Your task to perform on an android device: Go to wifi settings Image 0: 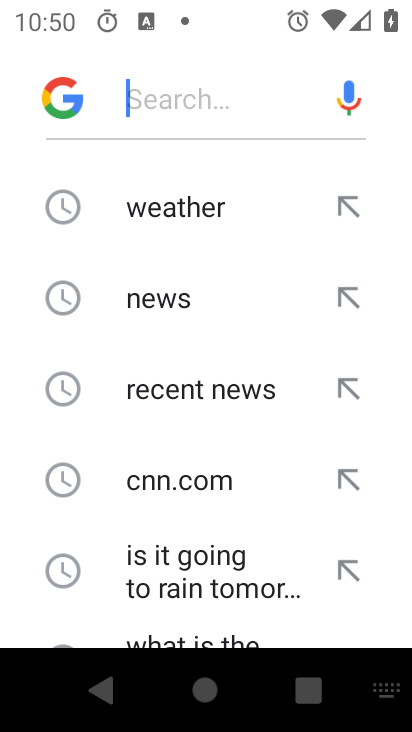
Step 0: press home button
Your task to perform on an android device: Go to wifi settings Image 1: 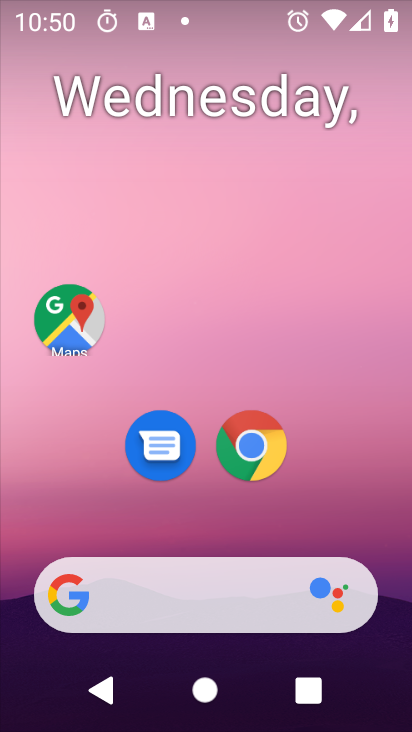
Step 1: drag from (398, 562) to (359, 107)
Your task to perform on an android device: Go to wifi settings Image 2: 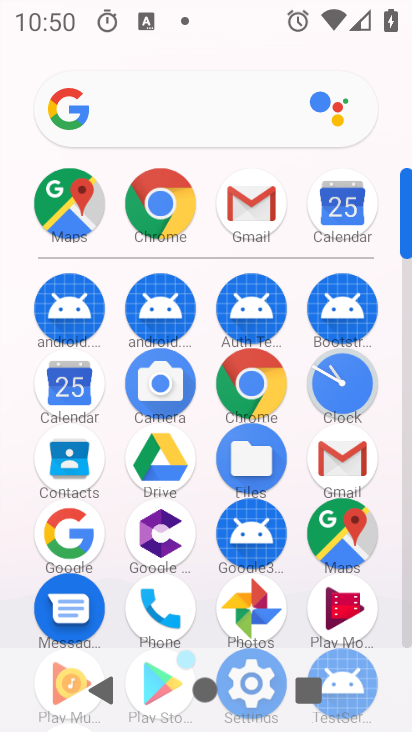
Step 2: drag from (398, 522) to (369, 237)
Your task to perform on an android device: Go to wifi settings Image 3: 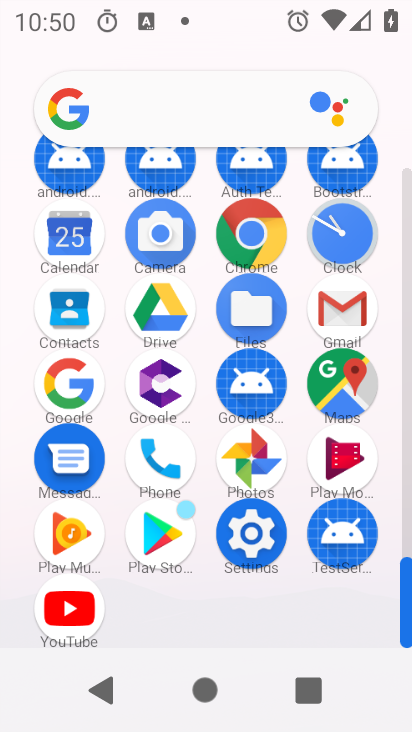
Step 3: click (260, 549)
Your task to perform on an android device: Go to wifi settings Image 4: 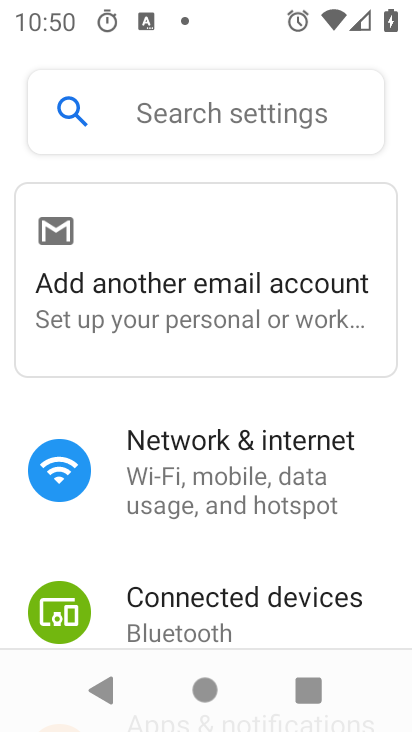
Step 4: click (234, 492)
Your task to perform on an android device: Go to wifi settings Image 5: 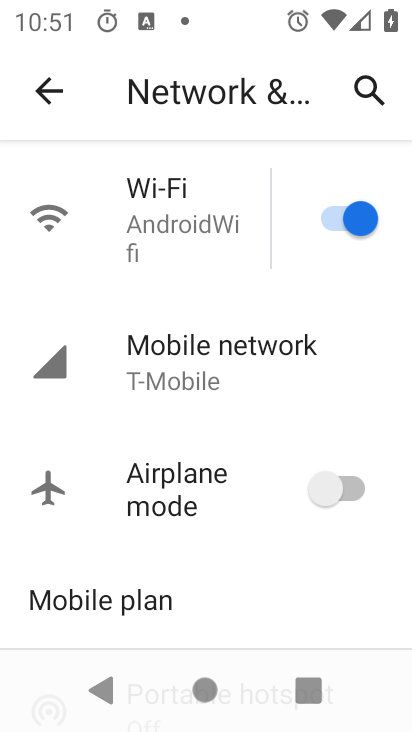
Step 5: click (180, 203)
Your task to perform on an android device: Go to wifi settings Image 6: 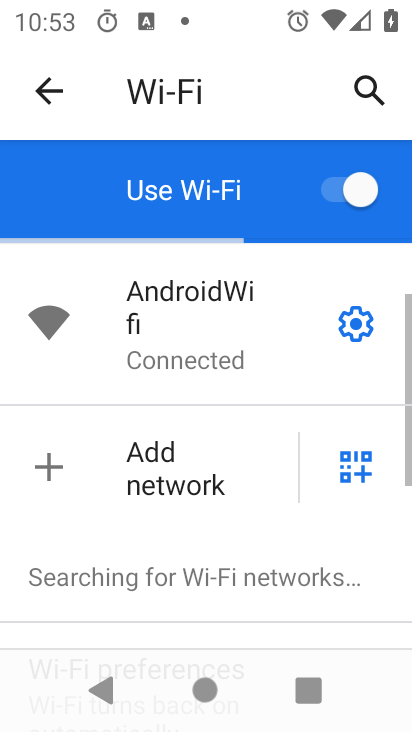
Step 6: task complete